Your task to perform on an android device: Open the calendar and show me this week's events? Image 0: 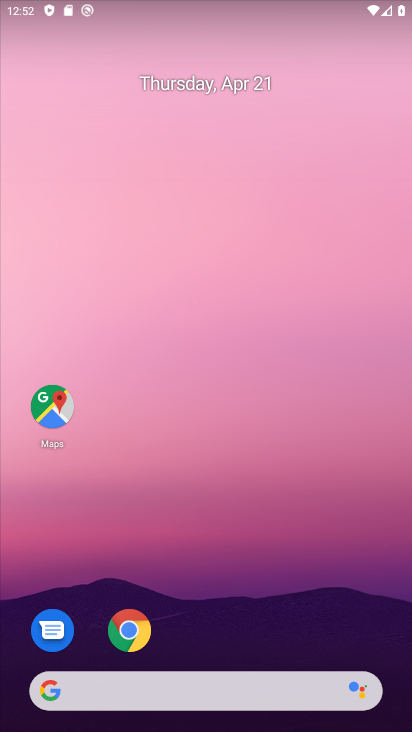
Step 0: drag from (307, 591) to (247, 79)
Your task to perform on an android device: Open the calendar and show me this week's events? Image 1: 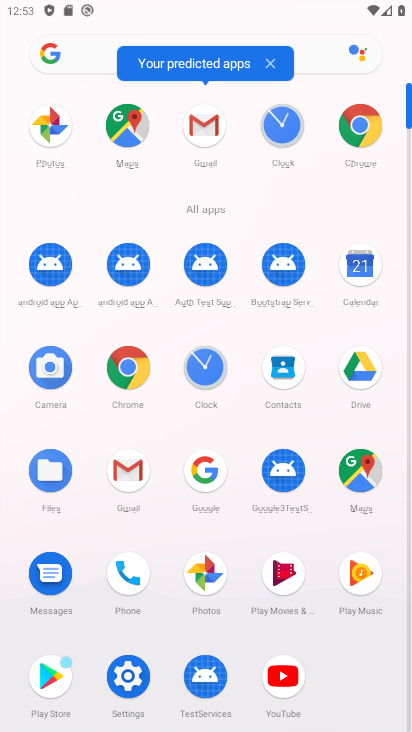
Step 1: click (355, 273)
Your task to perform on an android device: Open the calendar and show me this week's events? Image 2: 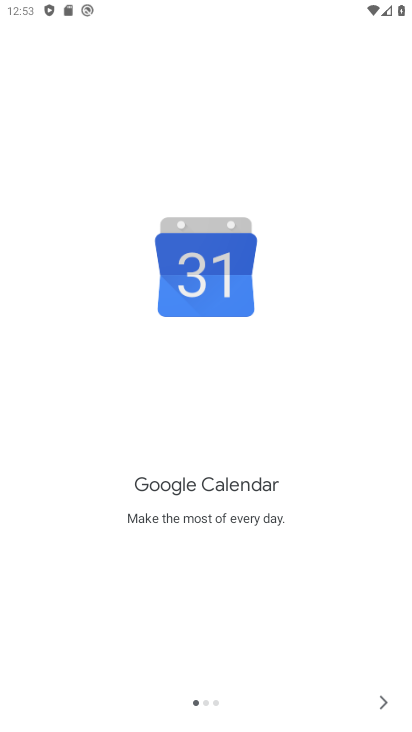
Step 2: click (376, 707)
Your task to perform on an android device: Open the calendar and show me this week's events? Image 3: 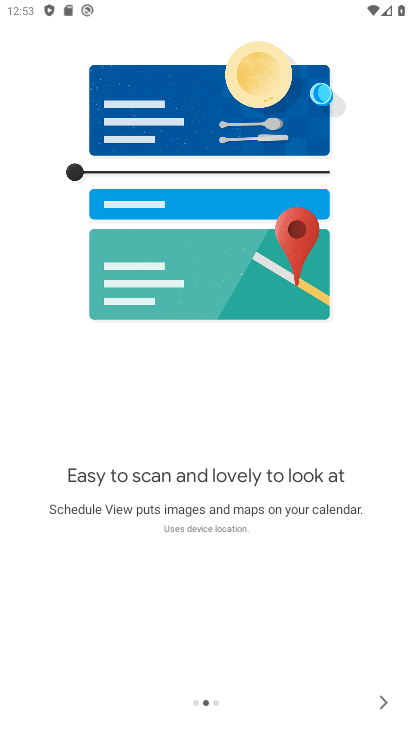
Step 3: click (371, 705)
Your task to perform on an android device: Open the calendar and show me this week's events? Image 4: 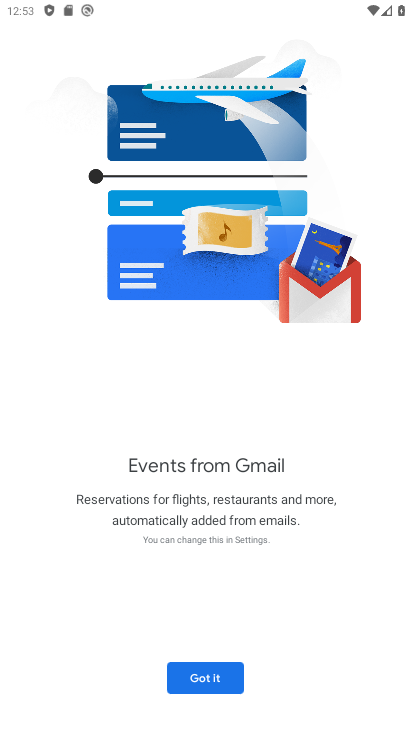
Step 4: click (221, 668)
Your task to perform on an android device: Open the calendar and show me this week's events? Image 5: 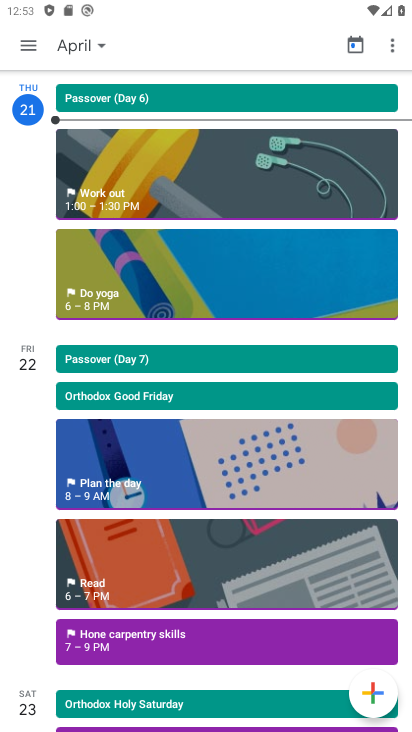
Step 5: click (78, 44)
Your task to perform on an android device: Open the calendar and show me this week's events? Image 6: 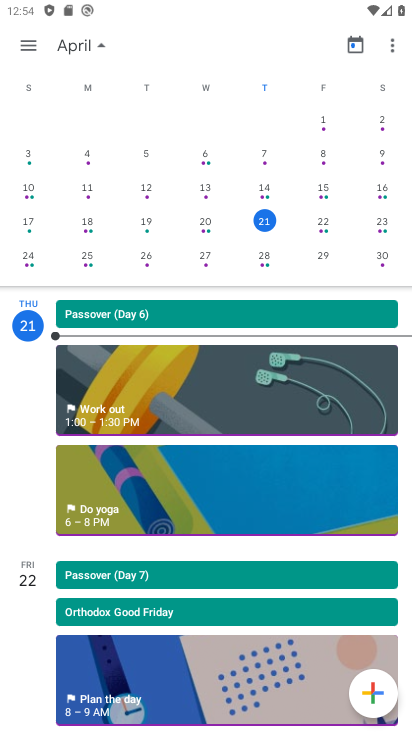
Step 6: click (27, 43)
Your task to perform on an android device: Open the calendar and show me this week's events? Image 7: 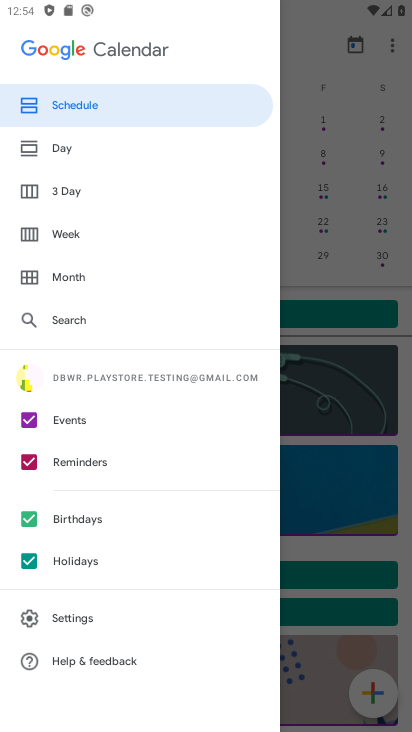
Step 7: click (71, 233)
Your task to perform on an android device: Open the calendar and show me this week's events? Image 8: 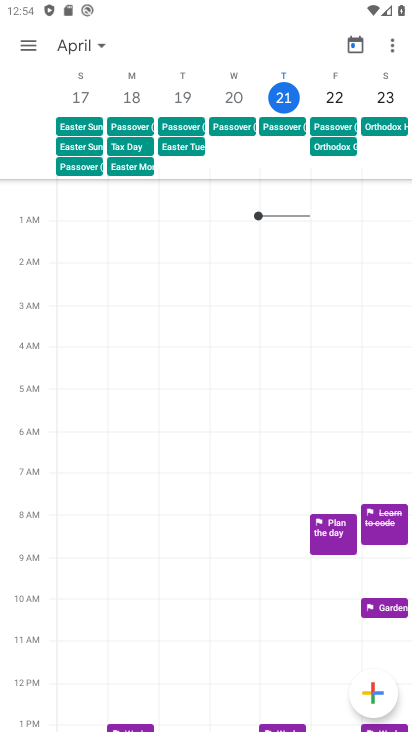
Step 8: task complete